Your task to perform on an android device: turn off priority inbox in the gmail app Image 0: 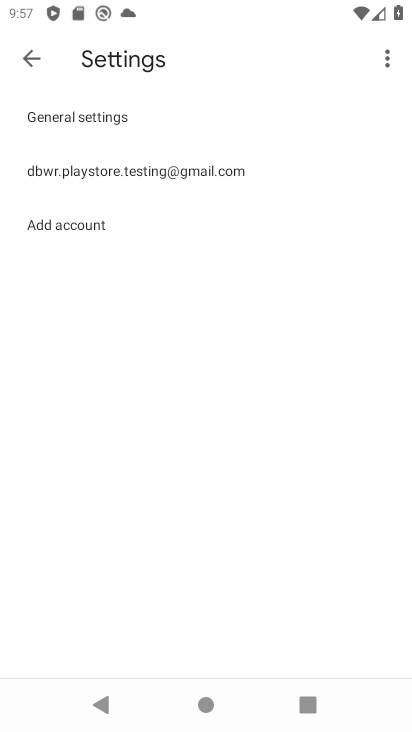
Step 0: press back button
Your task to perform on an android device: turn off priority inbox in the gmail app Image 1: 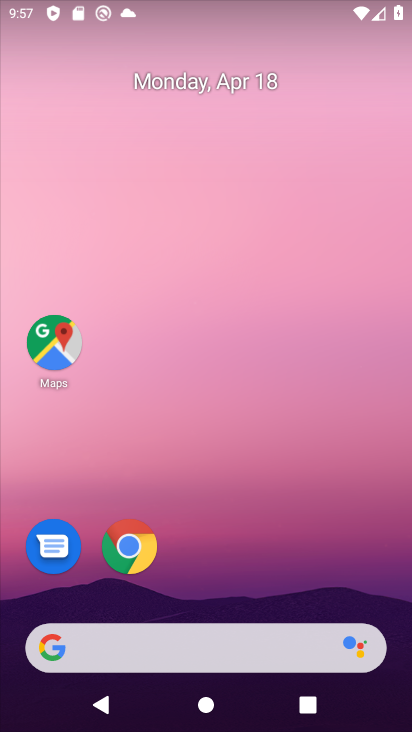
Step 1: drag from (219, 718) to (219, 58)
Your task to perform on an android device: turn off priority inbox in the gmail app Image 2: 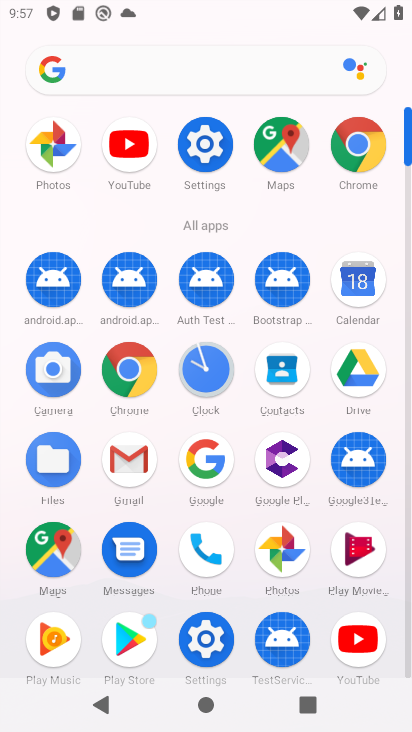
Step 2: click (130, 458)
Your task to perform on an android device: turn off priority inbox in the gmail app Image 3: 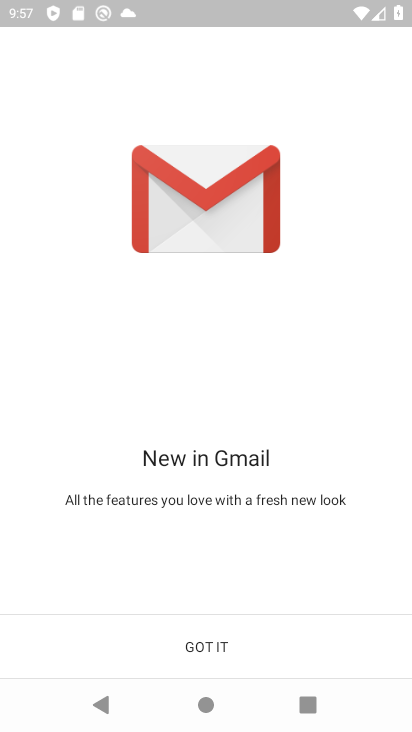
Step 3: click (202, 639)
Your task to perform on an android device: turn off priority inbox in the gmail app Image 4: 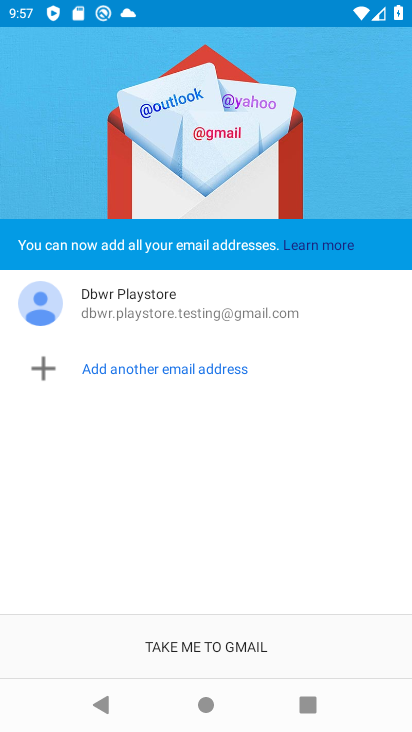
Step 4: click (213, 643)
Your task to perform on an android device: turn off priority inbox in the gmail app Image 5: 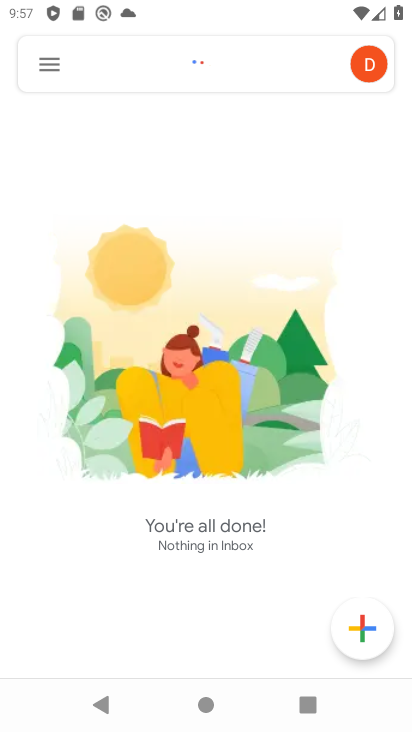
Step 5: click (47, 68)
Your task to perform on an android device: turn off priority inbox in the gmail app Image 6: 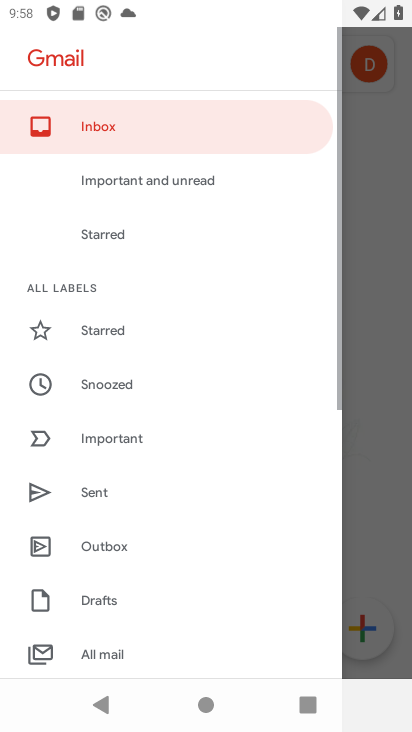
Step 6: drag from (155, 641) to (148, 198)
Your task to perform on an android device: turn off priority inbox in the gmail app Image 7: 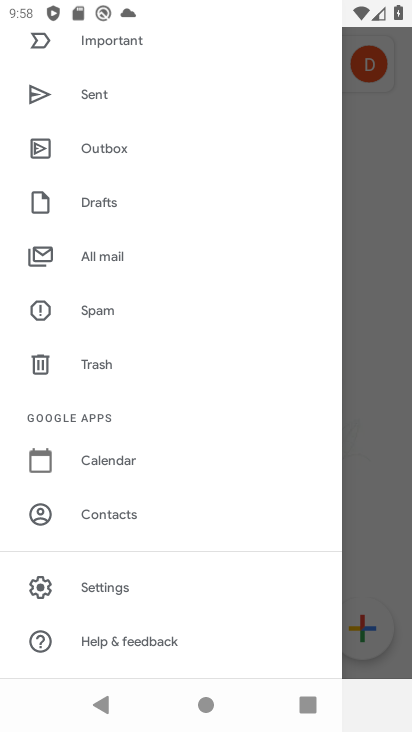
Step 7: click (110, 583)
Your task to perform on an android device: turn off priority inbox in the gmail app Image 8: 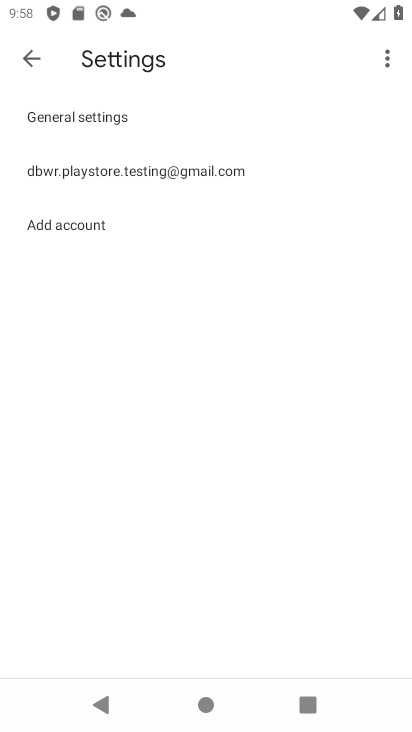
Step 8: click (143, 166)
Your task to perform on an android device: turn off priority inbox in the gmail app Image 9: 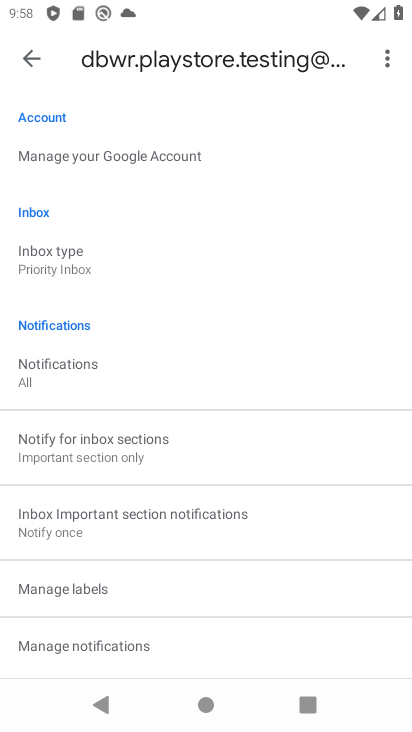
Step 9: click (75, 264)
Your task to perform on an android device: turn off priority inbox in the gmail app Image 10: 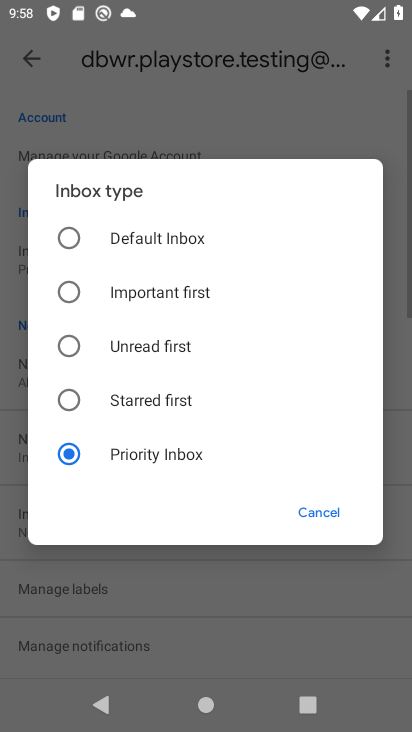
Step 10: click (66, 236)
Your task to perform on an android device: turn off priority inbox in the gmail app Image 11: 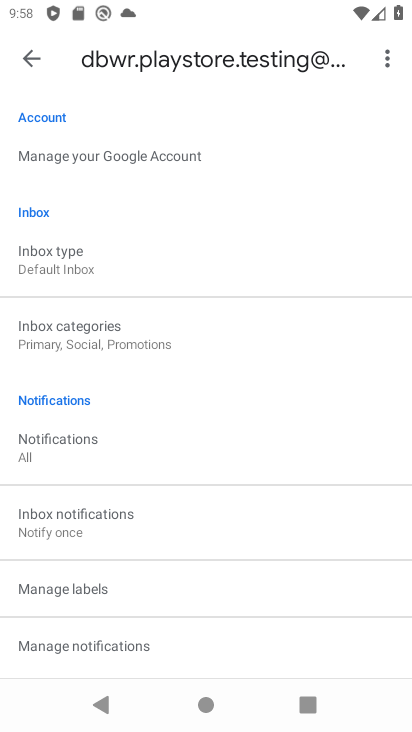
Step 11: task complete